Your task to perform on an android device: find which apps use the phone's location Image 0: 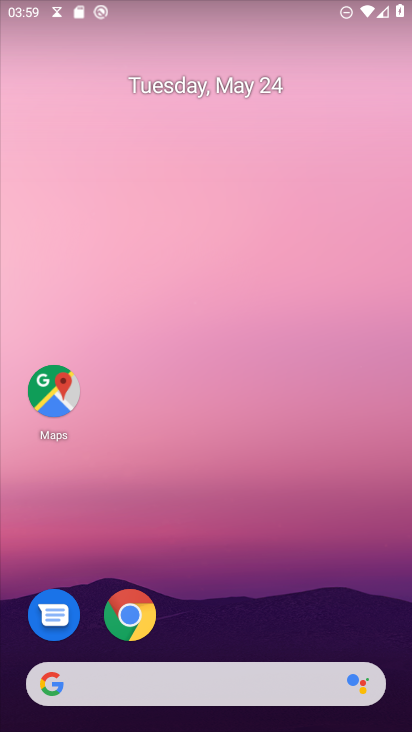
Step 0: drag from (256, 572) to (245, 33)
Your task to perform on an android device: find which apps use the phone's location Image 1: 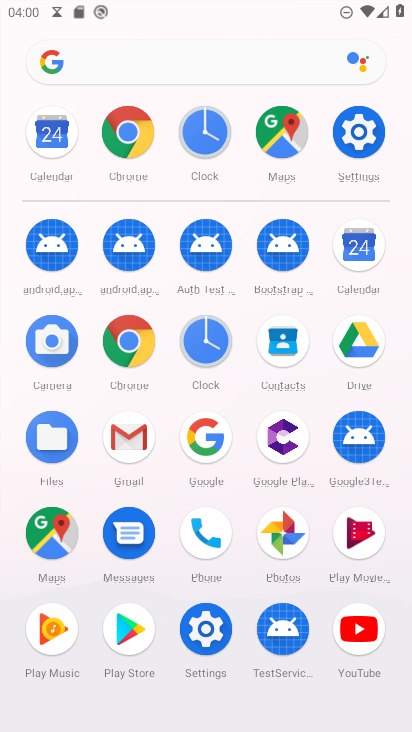
Step 1: click (202, 629)
Your task to perform on an android device: find which apps use the phone's location Image 2: 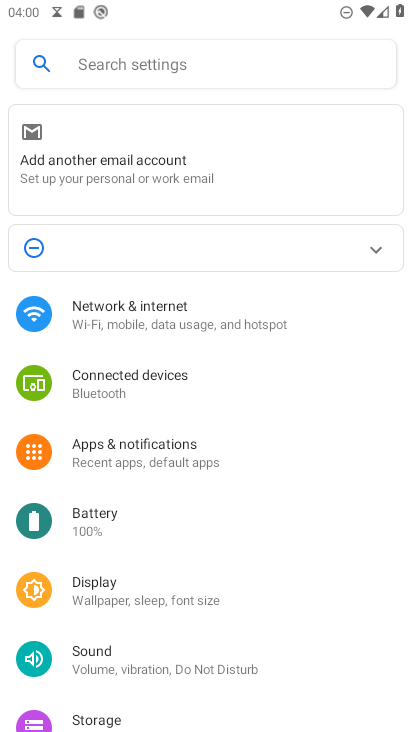
Step 2: drag from (176, 630) to (220, 301)
Your task to perform on an android device: find which apps use the phone's location Image 3: 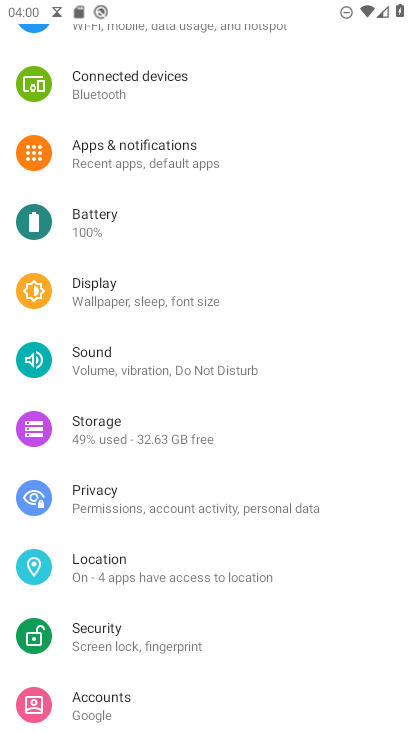
Step 3: click (113, 578)
Your task to perform on an android device: find which apps use the phone's location Image 4: 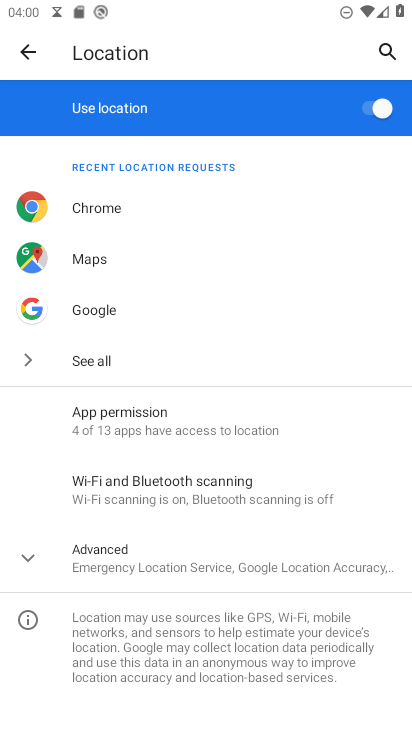
Step 4: click (152, 427)
Your task to perform on an android device: find which apps use the phone's location Image 5: 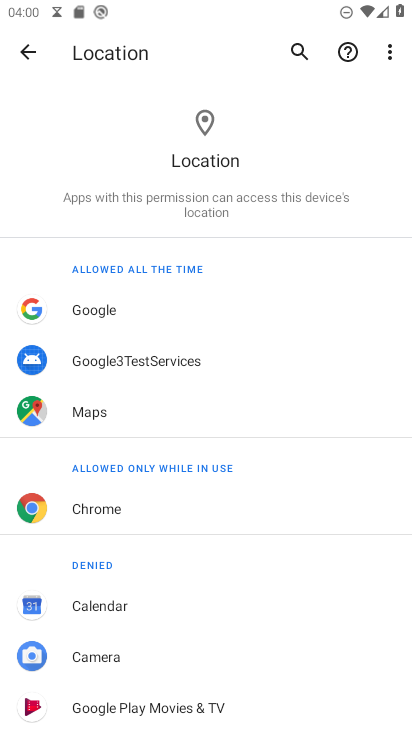
Step 5: task complete